Your task to perform on an android device: change the clock style Image 0: 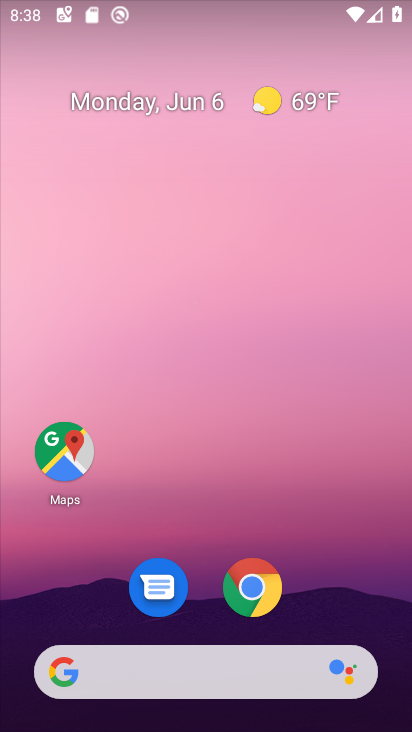
Step 0: drag from (327, 580) to (328, 281)
Your task to perform on an android device: change the clock style Image 1: 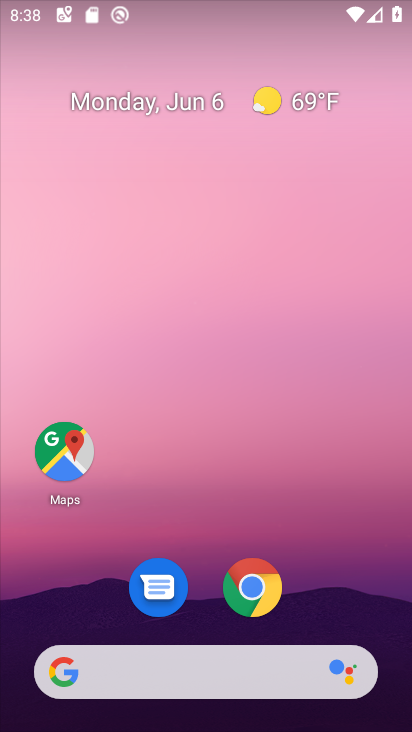
Step 1: drag from (332, 591) to (333, 235)
Your task to perform on an android device: change the clock style Image 2: 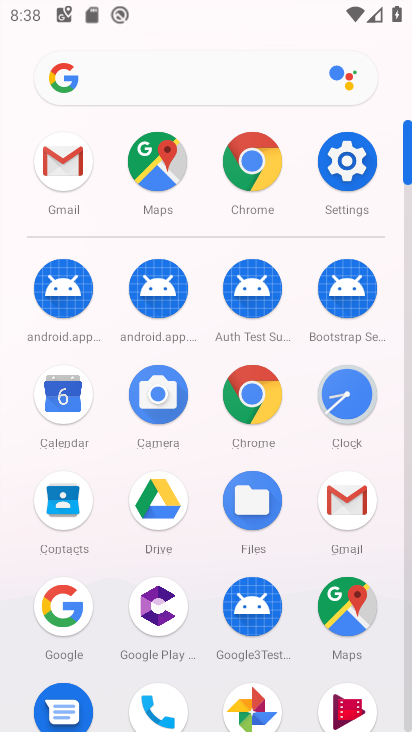
Step 2: click (336, 407)
Your task to perform on an android device: change the clock style Image 3: 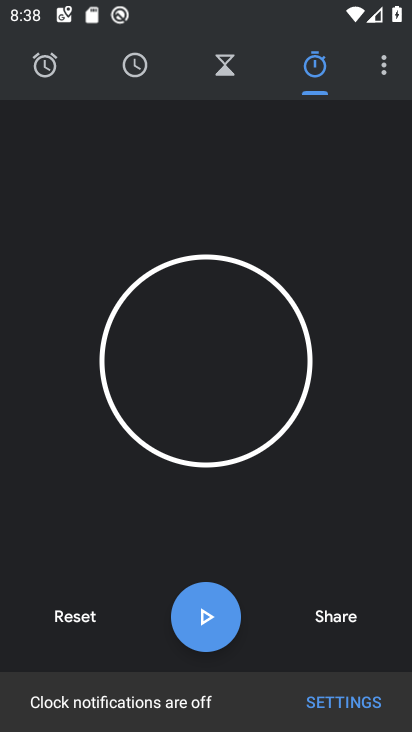
Step 3: click (388, 70)
Your task to perform on an android device: change the clock style Image 4: 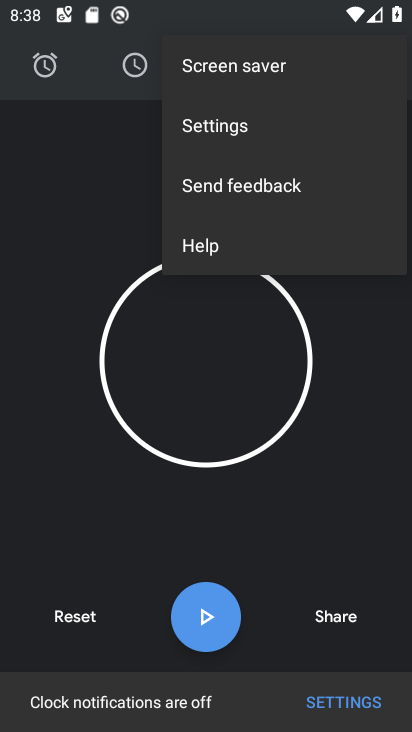
Step 4: click (243, 133)
Your task to perform on an android device: change the clock style Image 5: 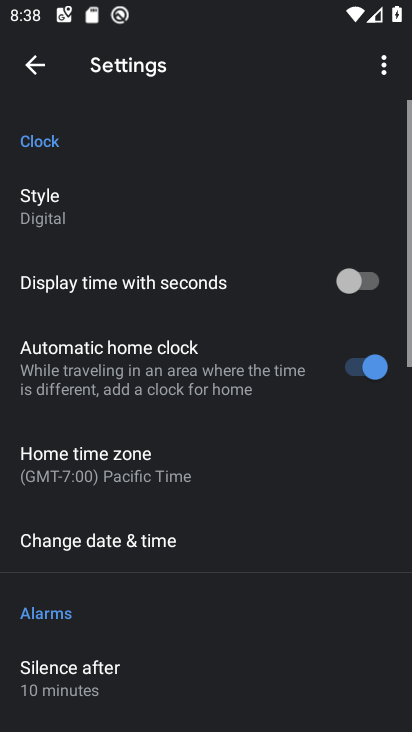
Step 5: click (52, 227)
Your task to perform on an android device: change the clock style Image 6: 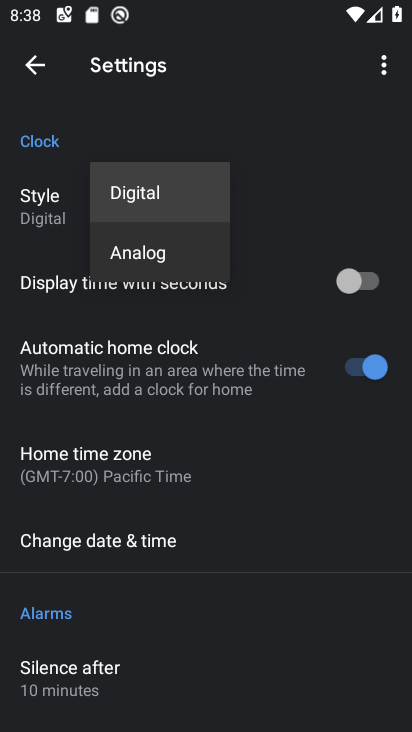
Step 6: click (125, 254)
Your task to perform on an android device: change the clock style Image 7: 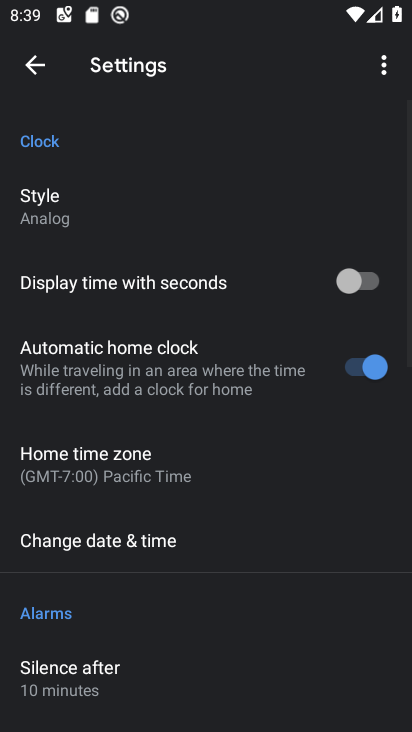
Step 7: task complete